Your task to perform on an android device: Open the calendar and show me this week's events? Image 0: 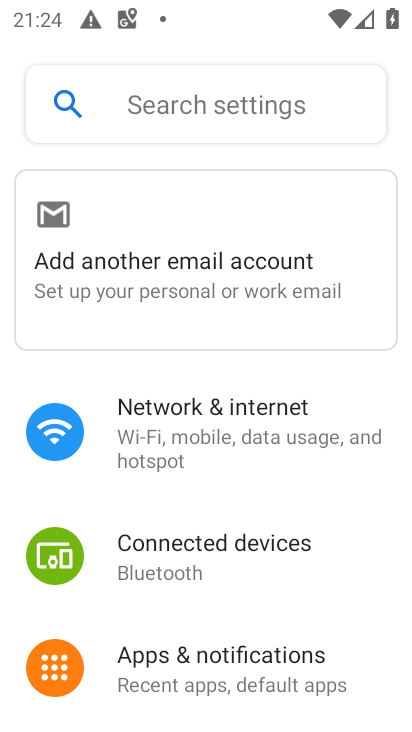
Step 0: press home button
Your task to perform on an android device: Open the calendar and show me this week's events? Image 1: 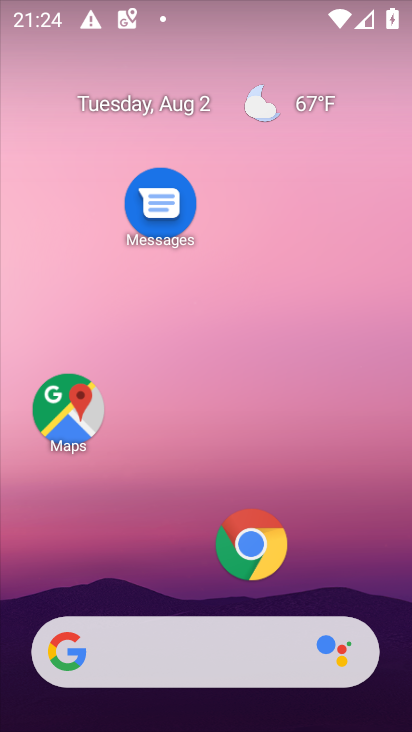
Step 1: drag from (201, 597) to (195, 153)
Your task to perform on an android device: Open the calendar and show me this week's events? Image 2: 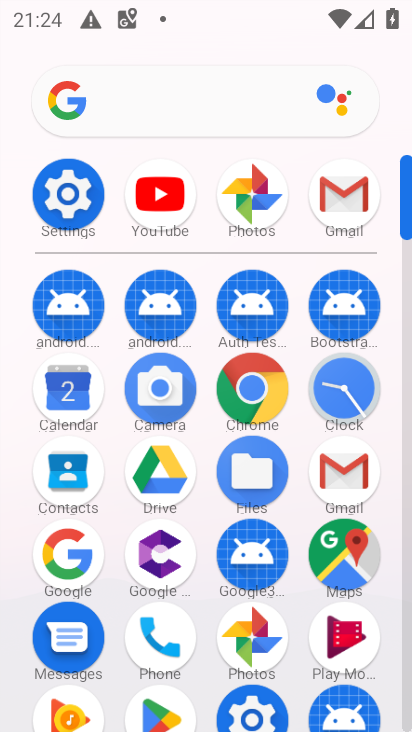
Step 2: click (78, 400)
Your task to perform on an android device: Open the calendar and show me this week's events? Image 3: 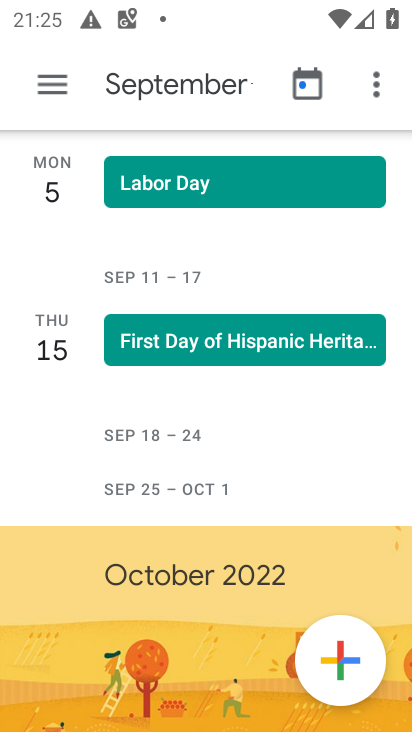
Step 3: click (226, 92)
Your task to perform on an android device: Open the calendar and show me this week's events? Image 4: 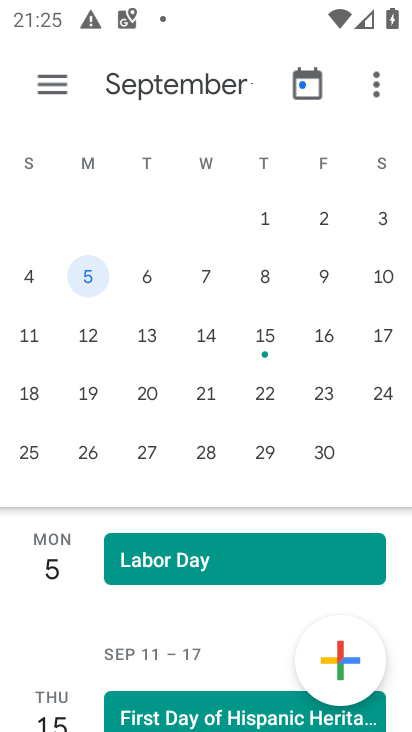
Step 4: click (232, 87)
Your task to perform on an android device: Open the calendar and show me this week's events? Image 5: 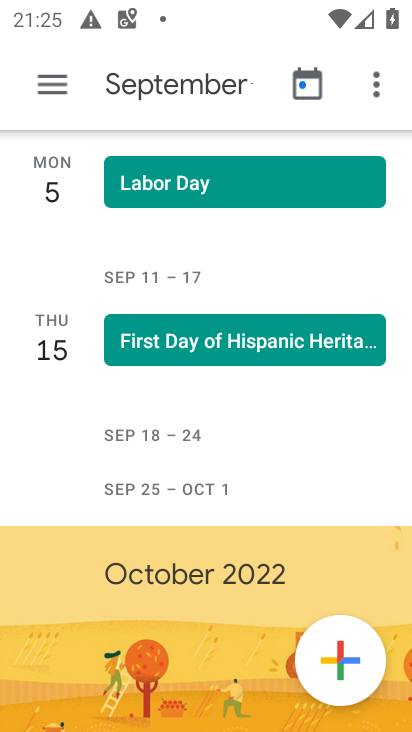
Step 5: click (232, 87)
Your task to perform on an android device: Open the calendar and show me this week's events? Image 6: 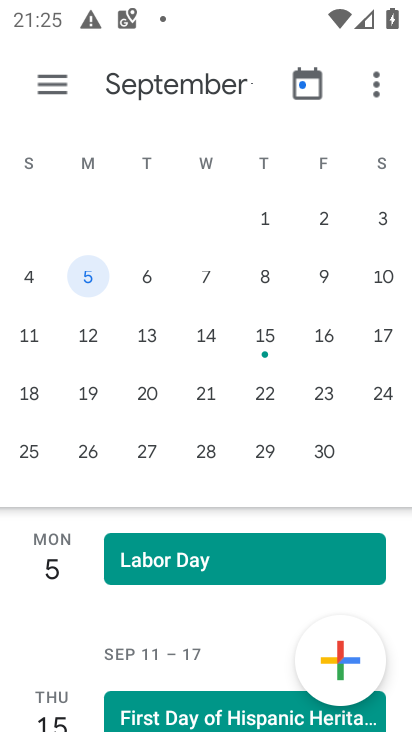
Step 6: drag from (22, 265) to (410, 289)
Your task to perform on an android device: Open the calendar and show me this week's events? Image 7: 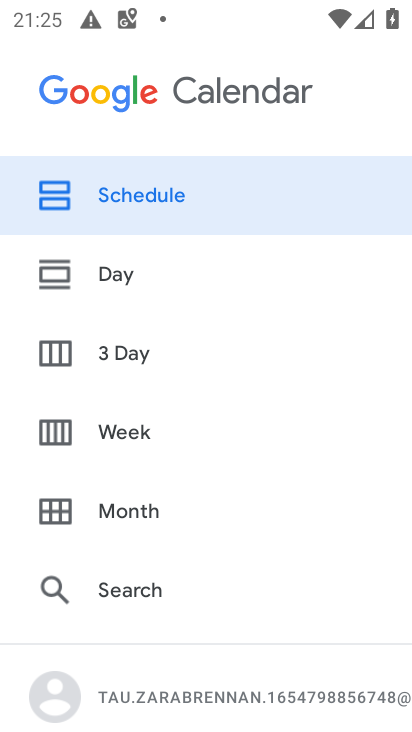
Step 7: click (374, 201)
Your task to perform on an android device: Open the calendar and show me this week's events? Image 8: 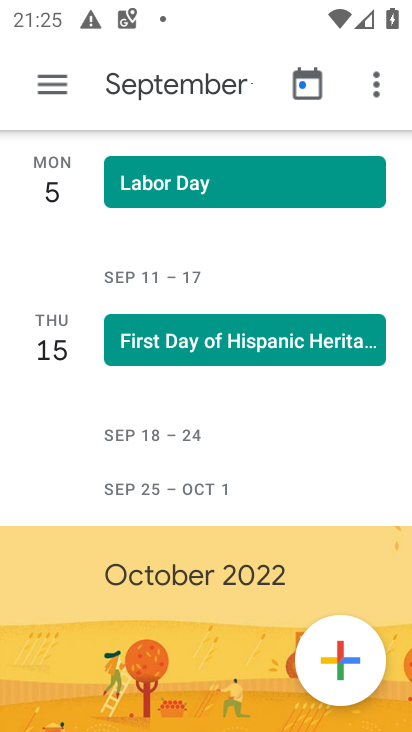
Step 8: click (163, 76)
Your task to perform on an android device: Open the calendar and show me this week's events? Image 9: 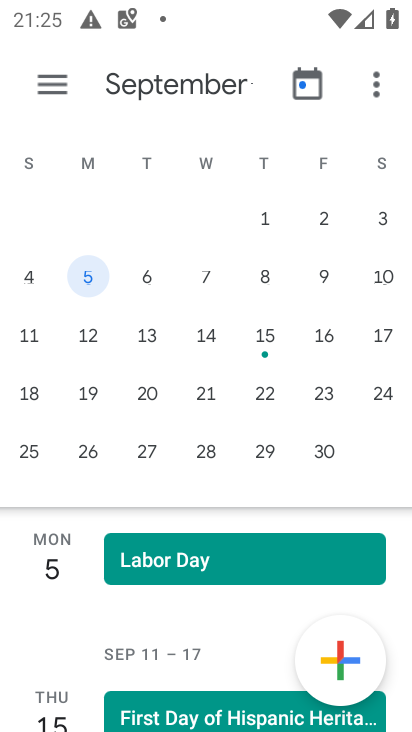
Step 9: task complete